Your task to perform on an android device: Open the stopwatch Image 0: 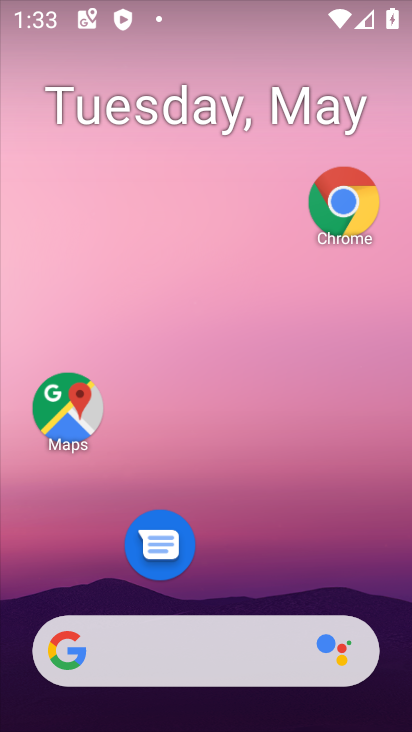
Step 0: drag from (216, 590) to (243, 53)
Your task to perform on an android device: Open the stopwatch Image 1: 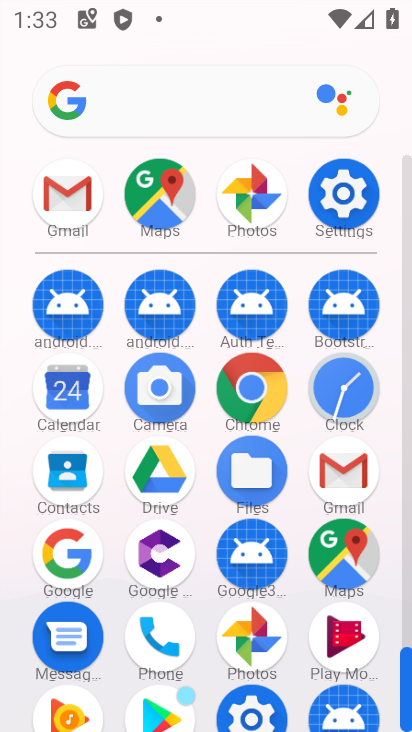
Step 1: click (354, 393)
Your task to perform on an android device: Open the stopwatch Image 2: 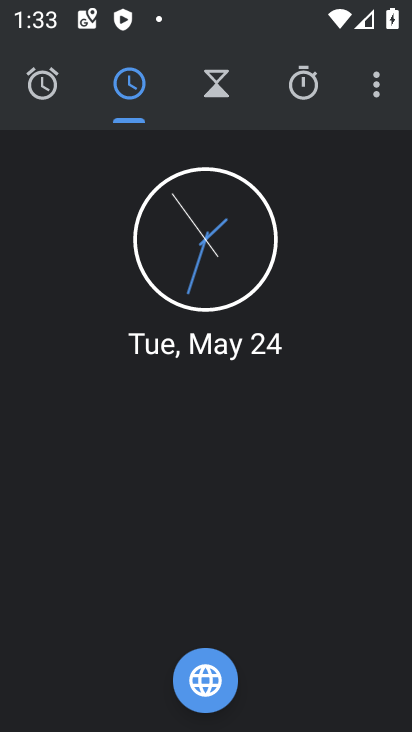
Step 2: click (324, 93)
Your task to perform on an android device: Open the stopwatch Image 3: 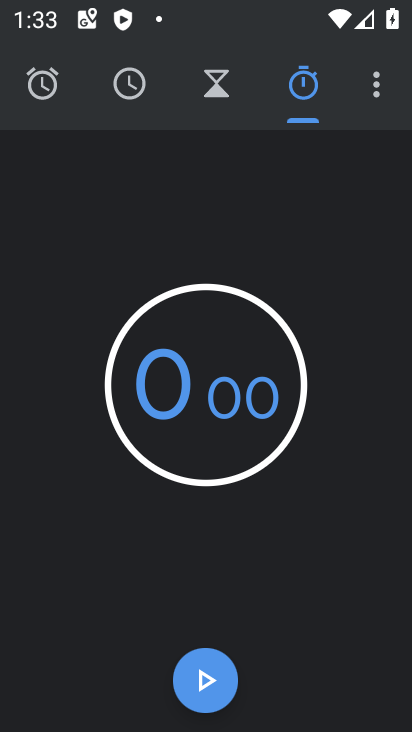
Step 3: task complete